Your task to perform on an android device: set an alarm Image 0: 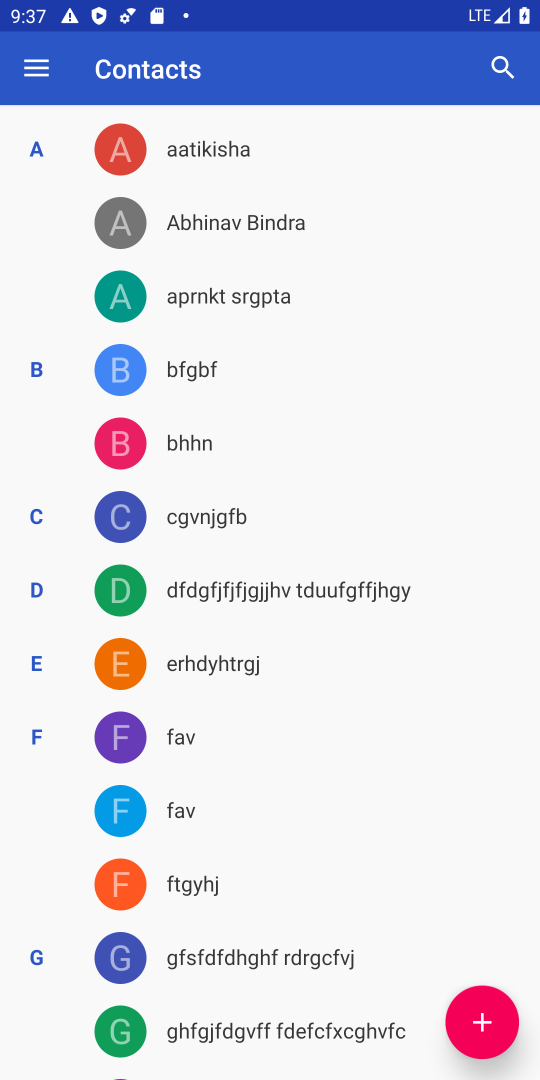
Step 0: press home button
Your task to perform on an android device: set an alarm Image 1: 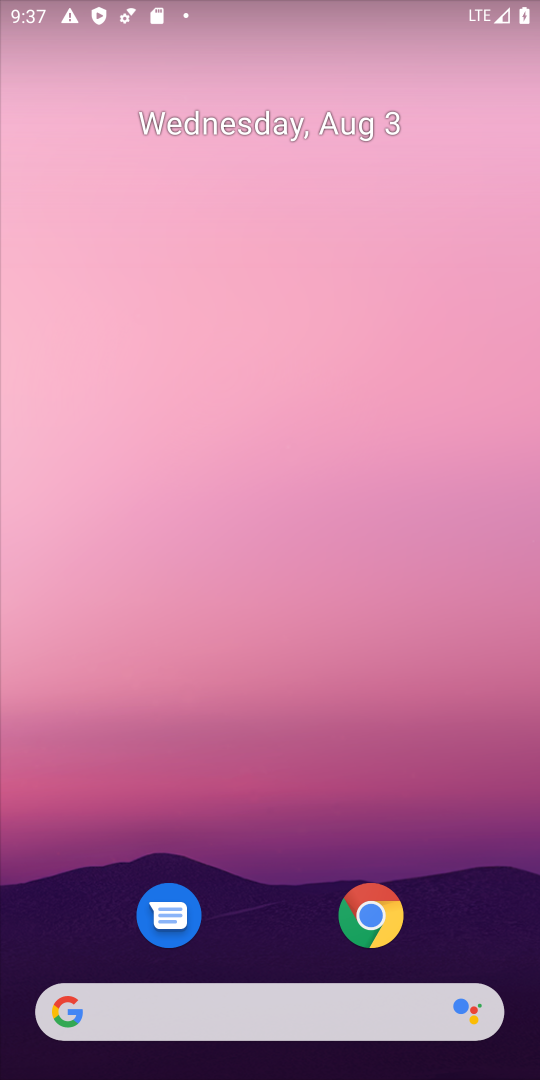
Step 1: drag from (240, 932) to (393, 398)
Your task to perform on an android device: set an alarm Image 2: 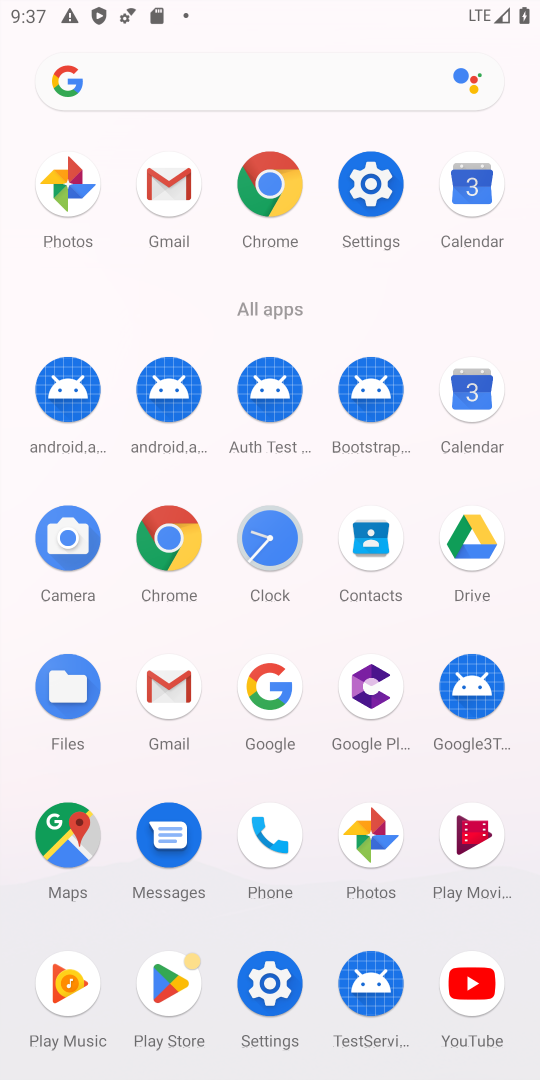
Step 2: click (273, 550)
Your task to perform on an android device: set an alarm Image 3: 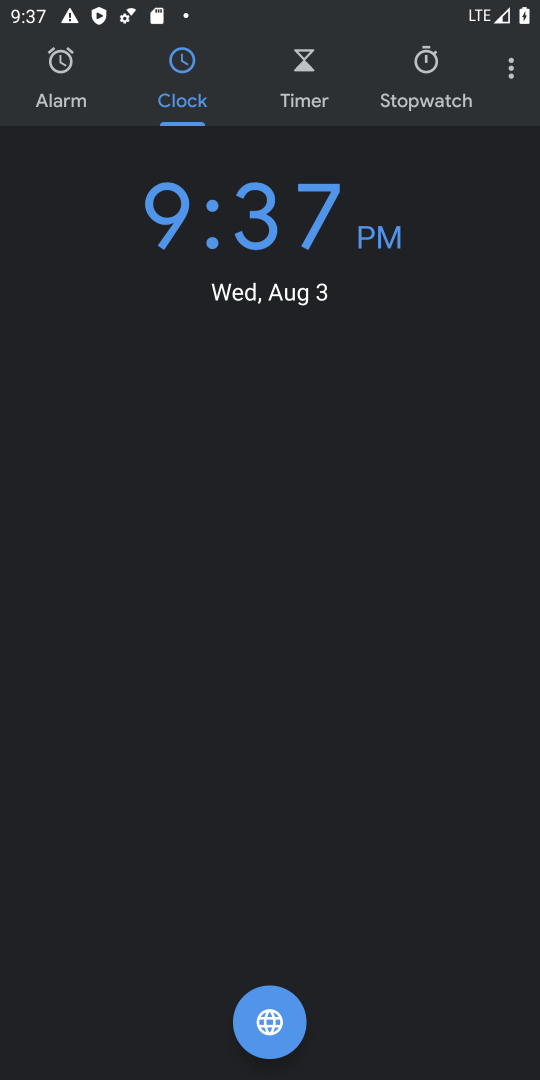
Step 3: click (41, 87)
Your task to perform on an android device: set an alarm Image 4: 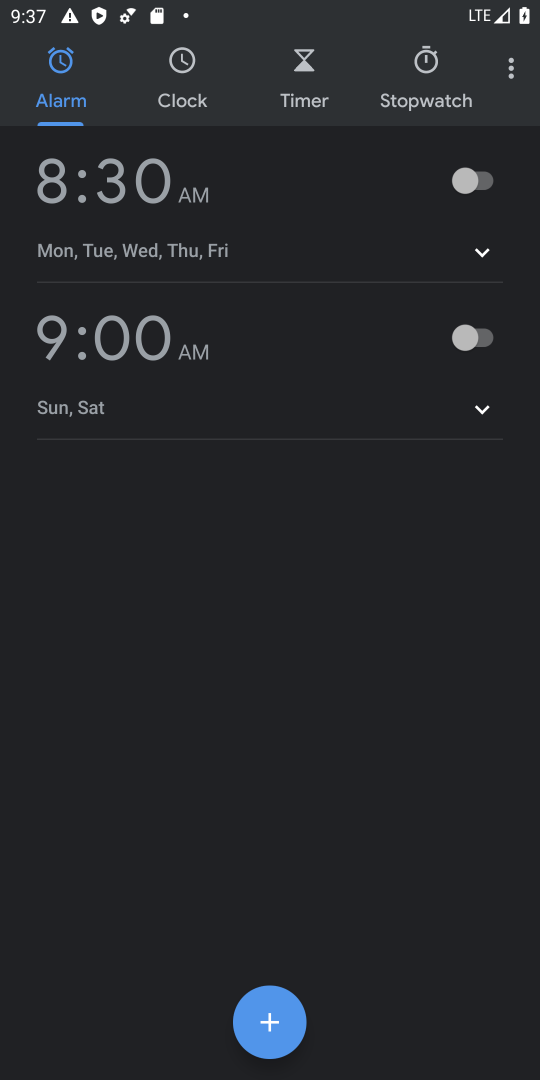
Step 4: click (286, 1026)
Your task to perform on an android device: set an alarm Image 5: 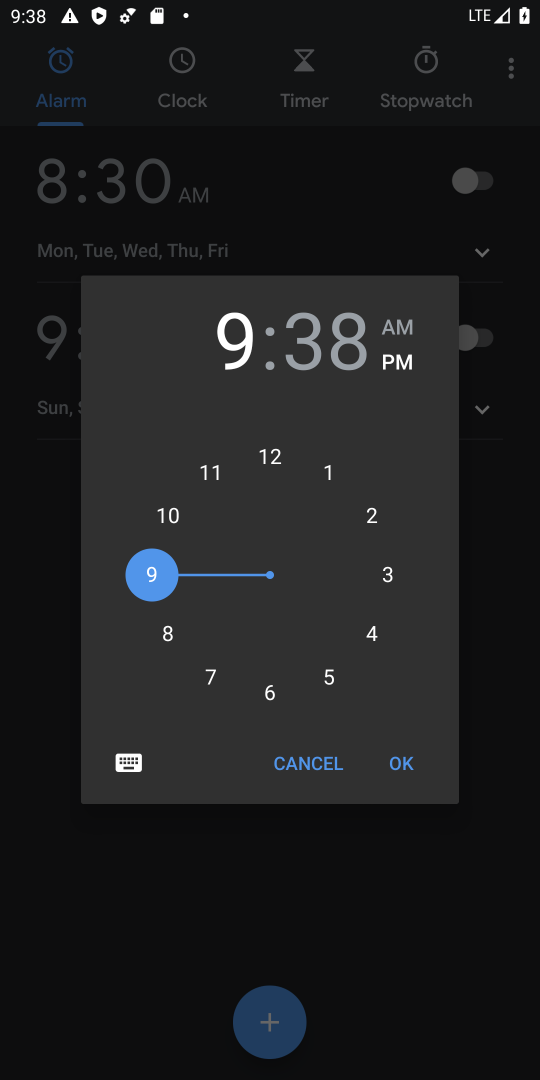
Step 5: click (270, 682)
Your task to perform on an android device: set an alarm Image 6: 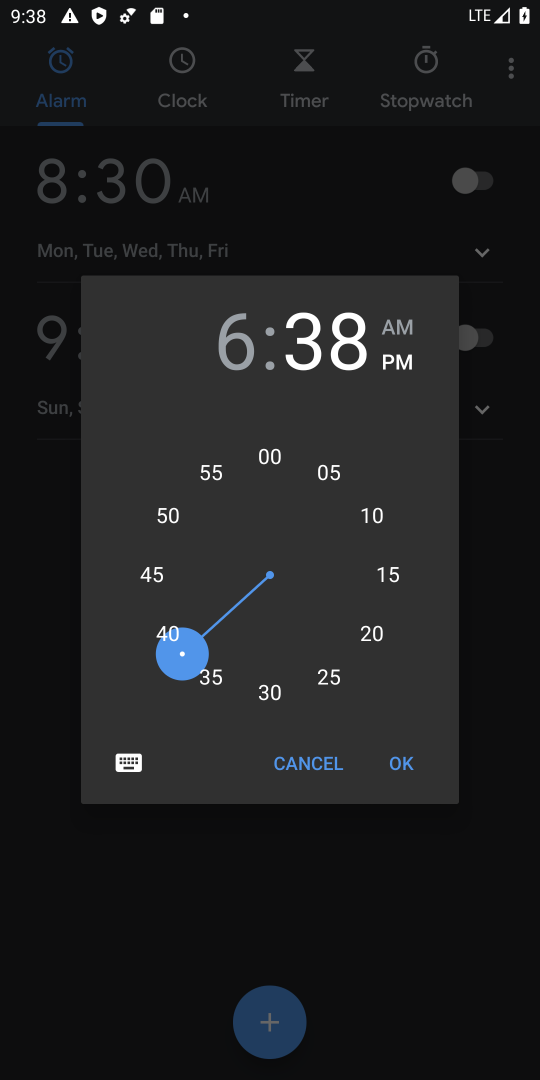
Step 6: click (268, 458)
Your task to perform on an android device: set an alarm Image 7: 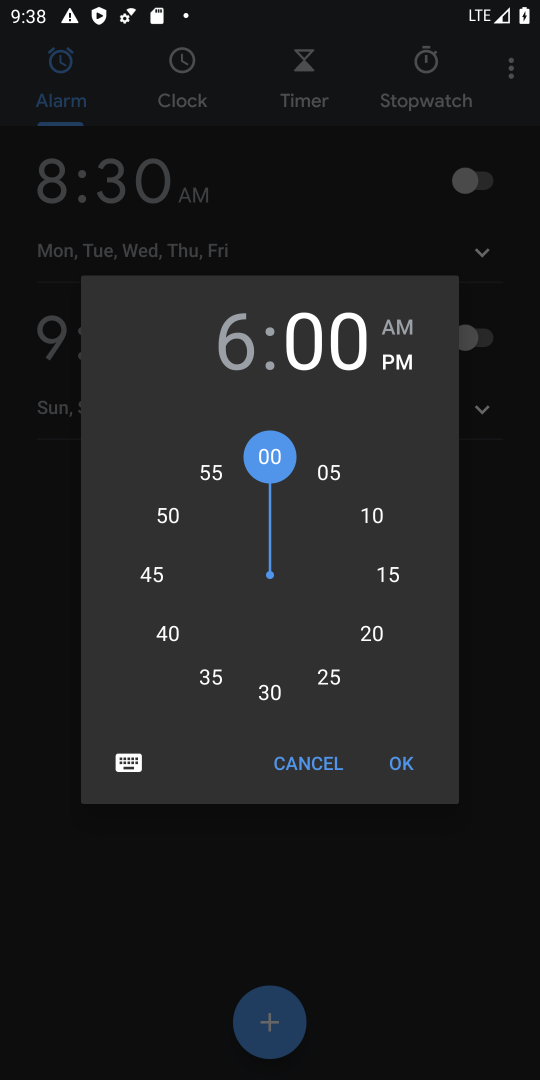
Step 7: click (403, 328)
Your task to perform on an android device: set an alarm Image 8: 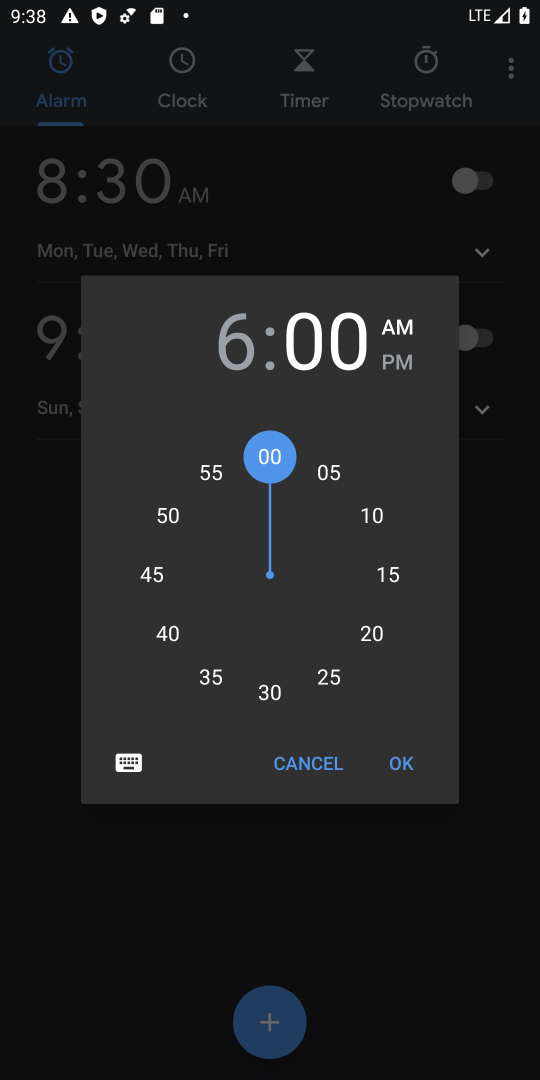
Step 8: click (415, 756)
Your task to perform on an android device: set an alarm Image 9: 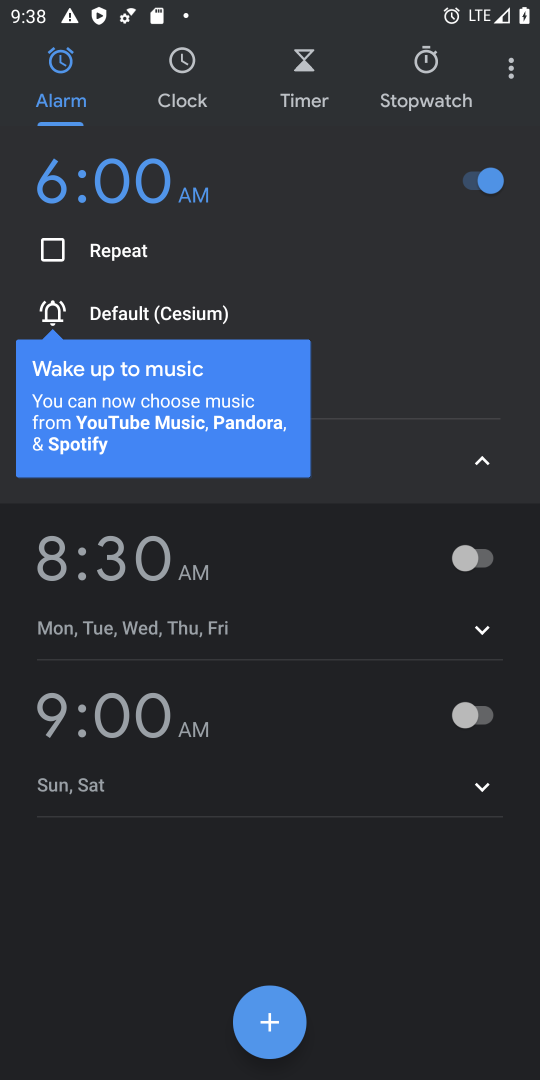
Step 9: task complete